Your task to perform on an android device: Show me popular videos on Youtube Image 0: 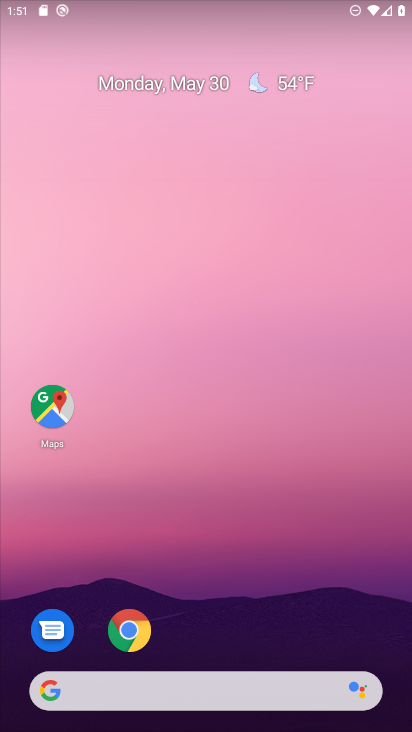
Step 0: drag from (220, 677) to (221, 168)
Your task to perform on an android device: Show me popular videos on Youtube Image 1: 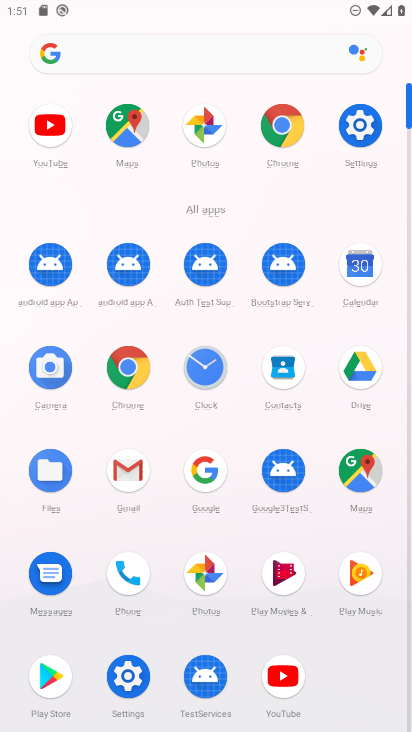
Step 1: click (50, 149)
Your task to perform on an android device: Show me popular videos on Youtube Image 2: 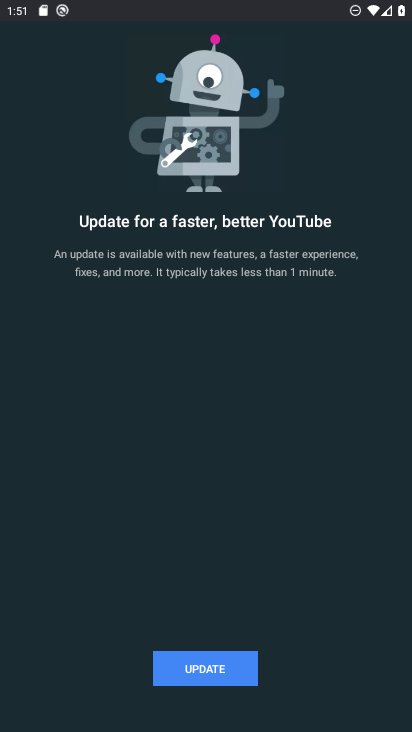
Step 2: click (214, 662)
Your task to perform on an android device: Show me popular videos on Youtube Image 3: 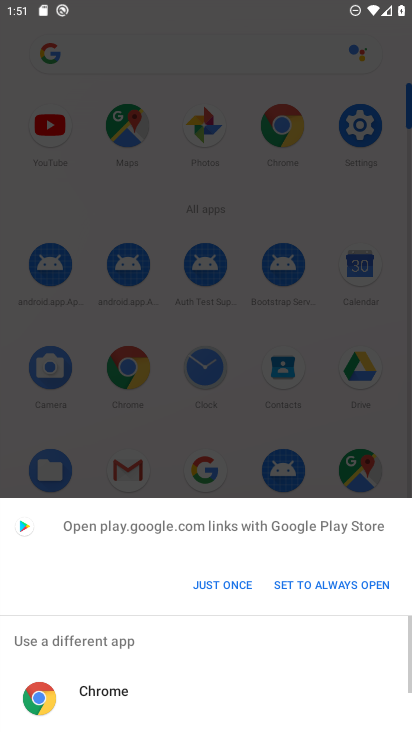
Step 3: click (204, 577)
Your task to perform on an android device: Show me popular videos on Youtube Image 4: 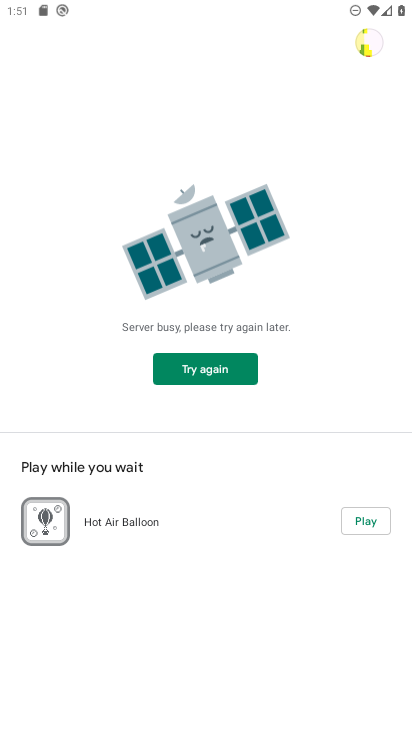
Step 4: click (197, 370)
Your task to perform on an android device: Show me popular videos on Youtube Image 5: 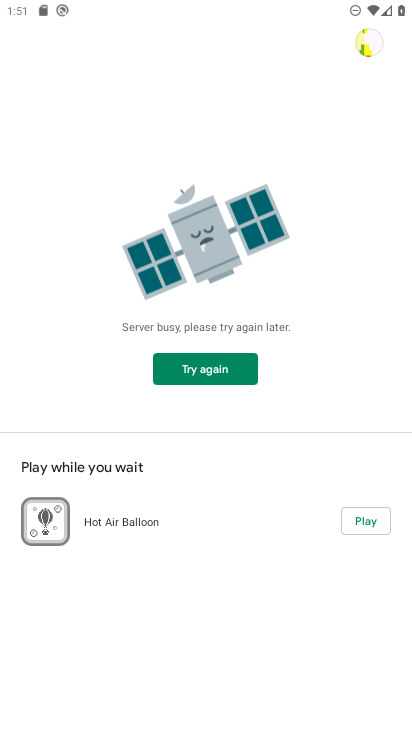
Step 5: task complete